Your task to perform on an android device: delete location history Image 0: 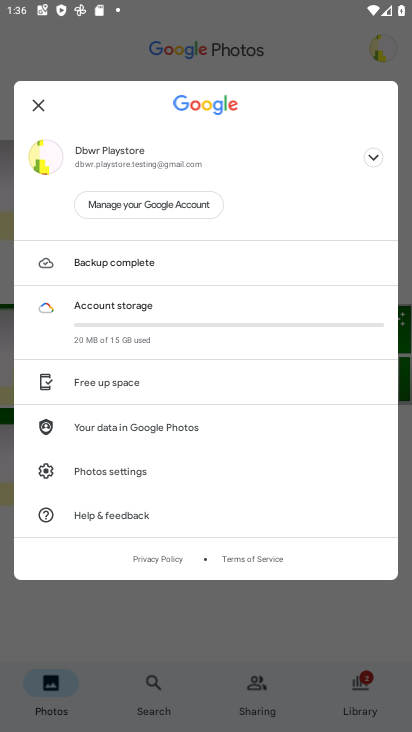
Step 0: press home button
Your task to perform on an android device: delete location history Image 1: 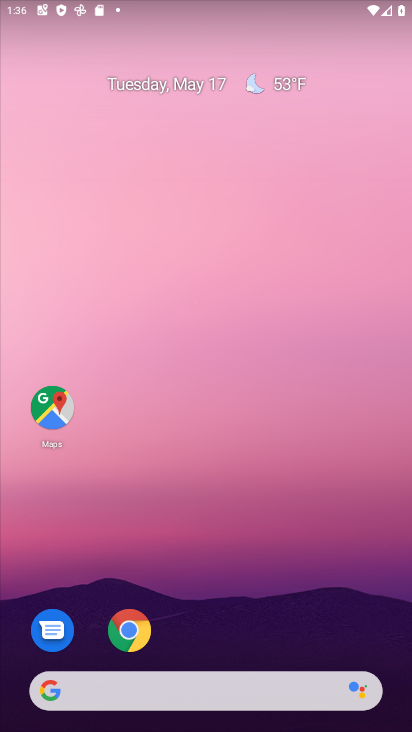
Step 1: drag from (158, 651) to (278, 227)
Your task to perform on an android device: delete location history Image 2: 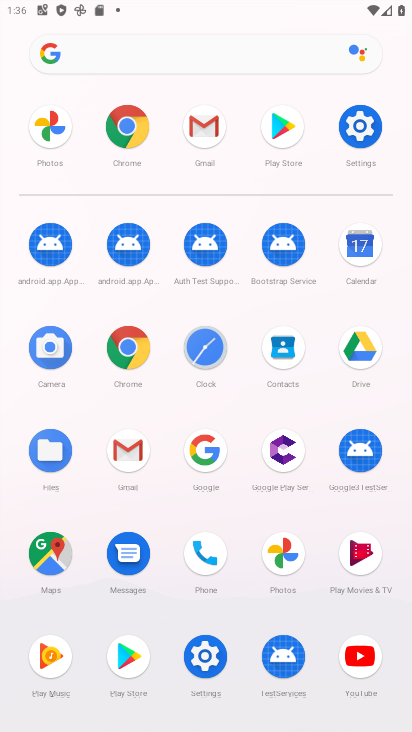
Step 2: click (366, 129)
Your task to perform on an android device: delete location history Image 3: 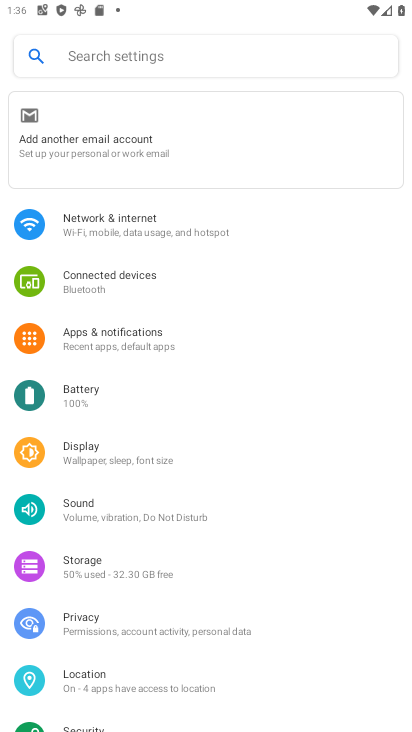
Step 3: drag from (210, 529) to (218, 275)
Your task to perform on an android device: delete location history Image 4: 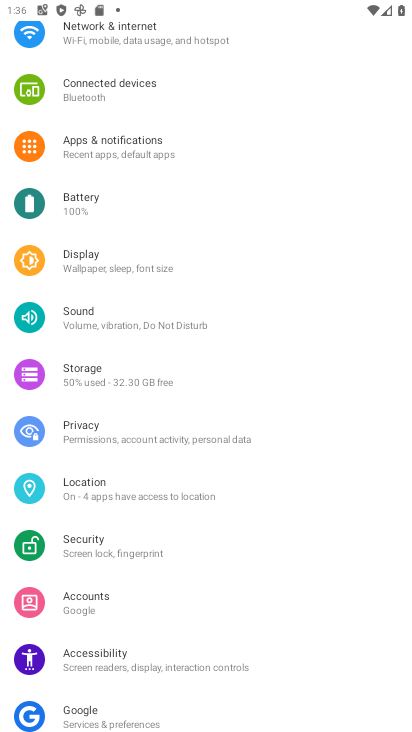
Step 4: click (121, 483)
Your task to perform on an android device: delete location history Image 5: 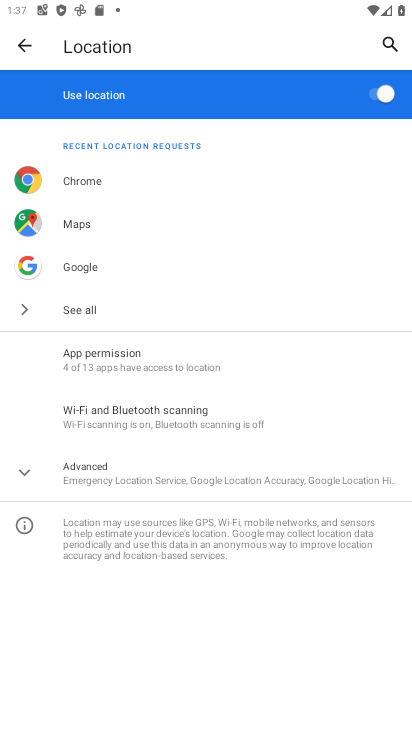
Step 5: click (120, 474)
Your task to perform on an android device: delete location history Image 6: 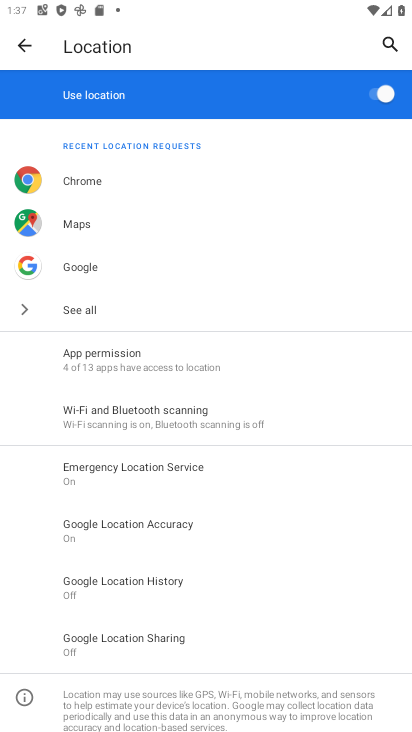
Step 6: click (168, 586)
Your task to perform on an android device: delete location history Image 7: 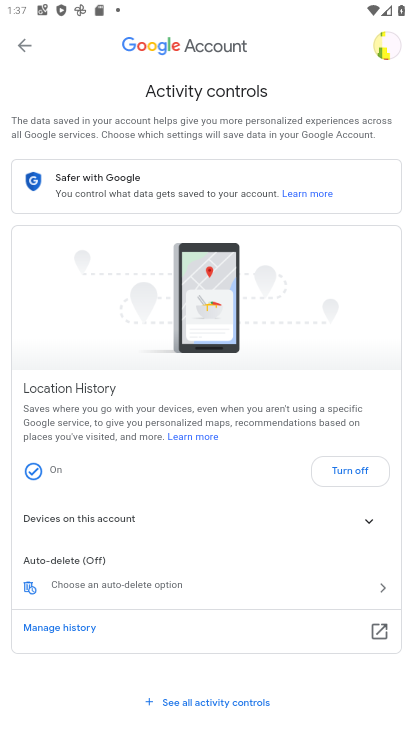
Step 7: drag from (189, 545) to (219, 439)
Your task to perform on an android device: delete location history Image 8: 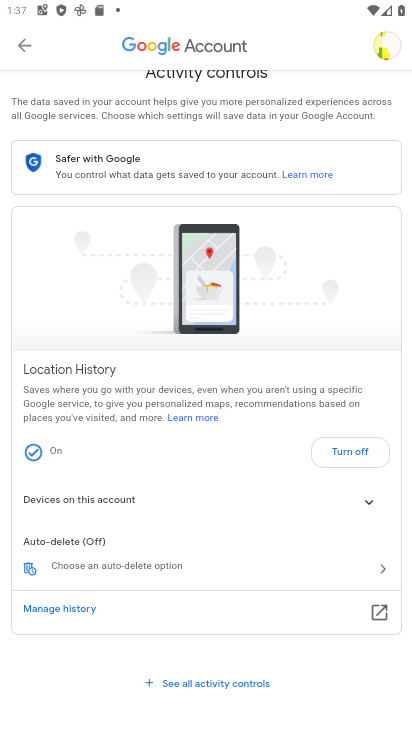
Step 8: click (197, 572)
Your task to perform on an android device: delete location history Image 9: 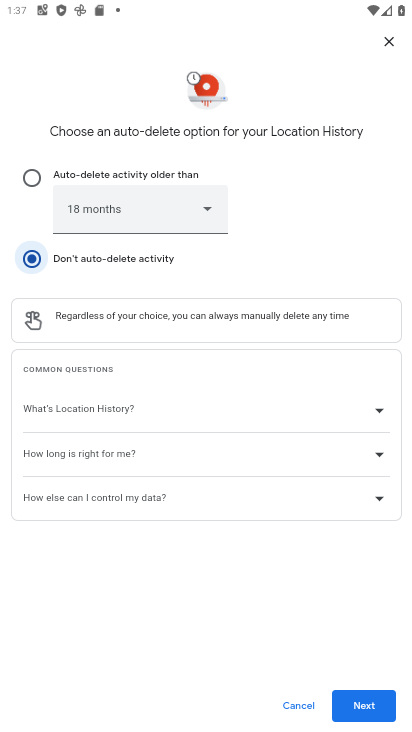
Step 9: click (357, 703)
Your task to perform on an android device: delete location history Image 10: 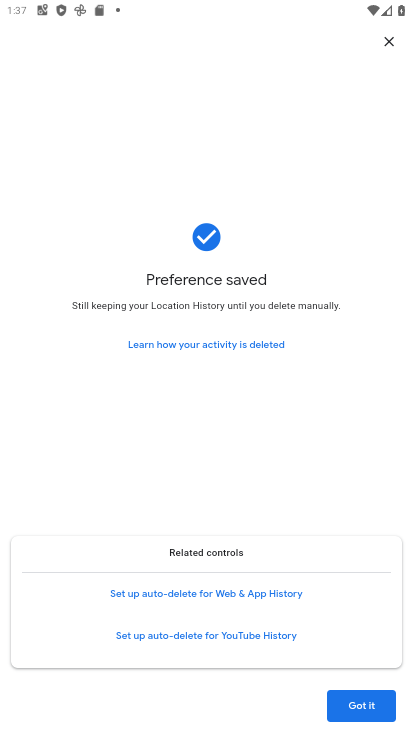
Step 10: click (372, 703)
Your task to perform on an android device: delete location history Image 11: 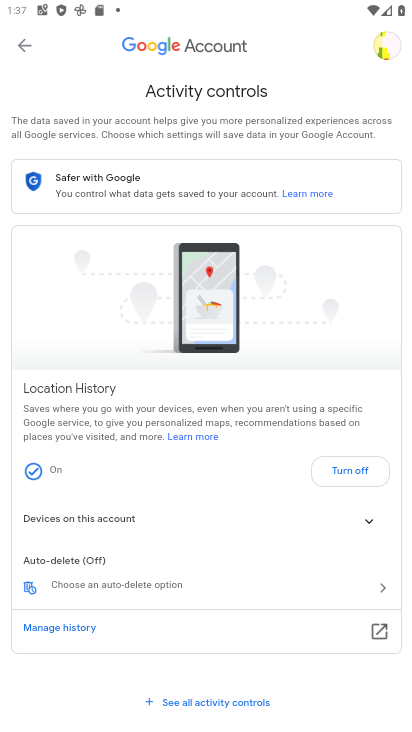
Step 11: task complete